Your task to perform on an android device: see creations saved in the google photos Image 0: 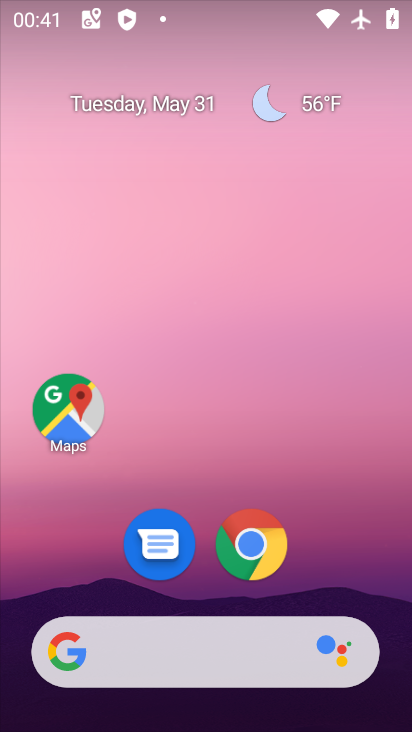
Step 0: drag from (280, 470) to (243, 187)
Your task to perform on an android device: see creations saved in the google photos Image 1: 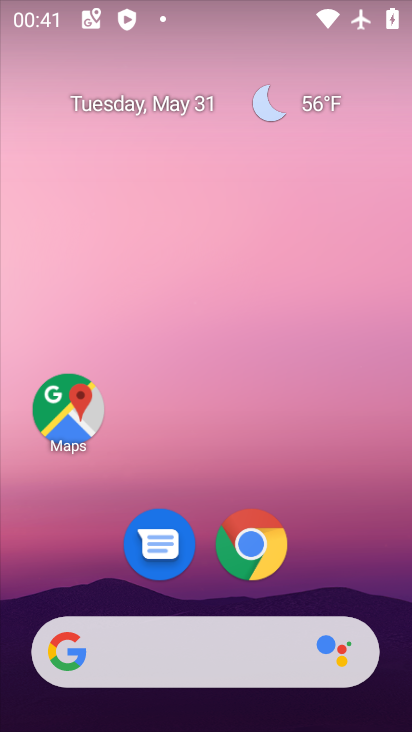
Step 1: drag from (205, 207) to (171, 10)
Your task to perform on an android device: see creations saved in the google photos Image 2: 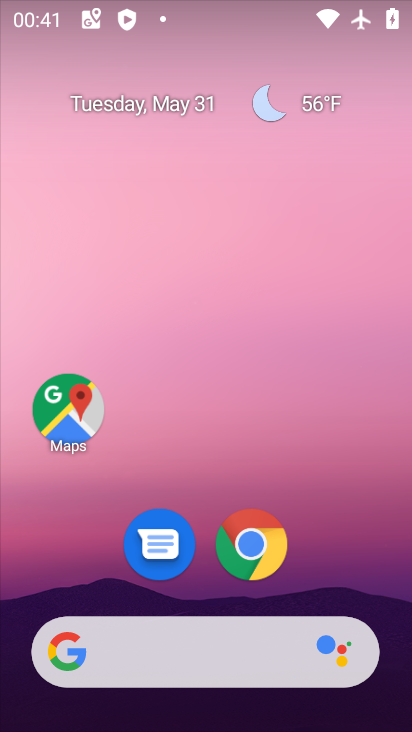
Step 2: drag from (323, 527) to (273, 82)
Your task to perform on an android device: see creations saved in the google photos Image 3: 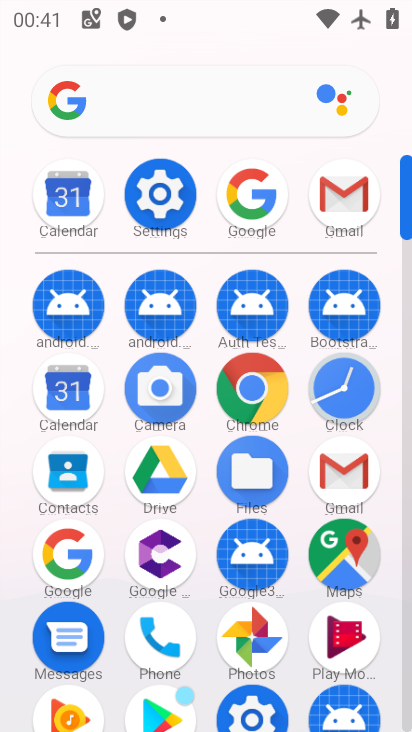
Step 3: click (249, 638)
Your task to perform on an android device: see creations saved in the google photos Image 4: 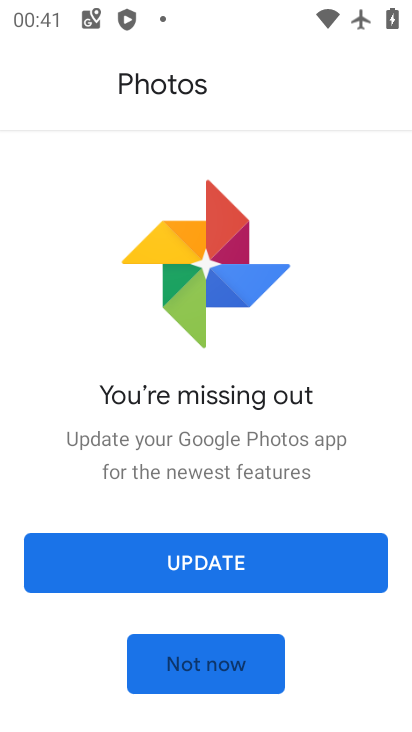
Step 4: click (188, 549)
Your task to perform on an android device: see creations saved in the google photos Image 5: 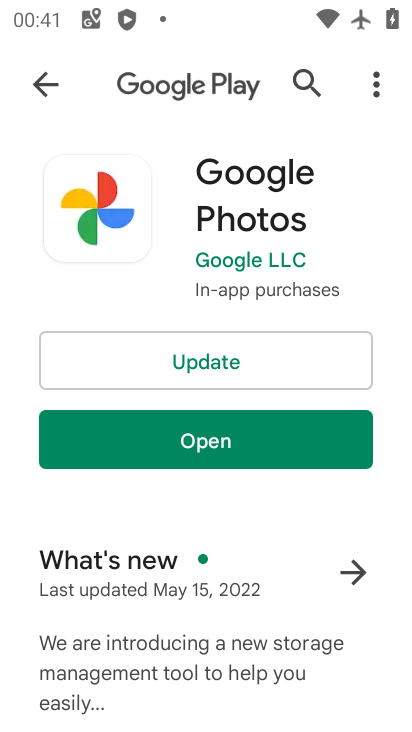
Step 5: click (209, 362)
Your task to perform on an android device: see creations saved in the google photos Image 6: 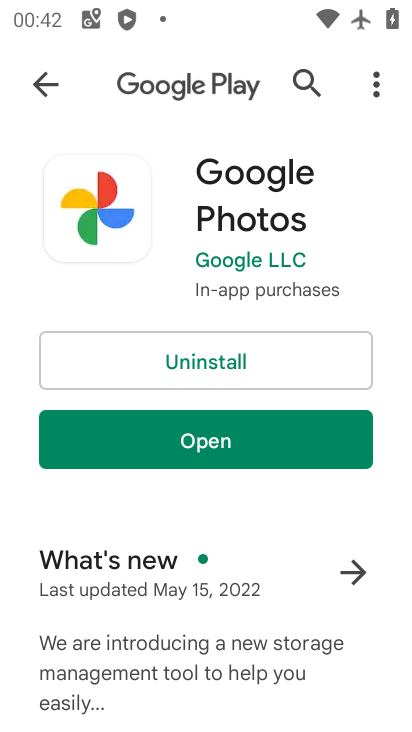
Step 6: click (209, 440)
Your task to perform on an android device: see creations saved in the google photos Image 7: 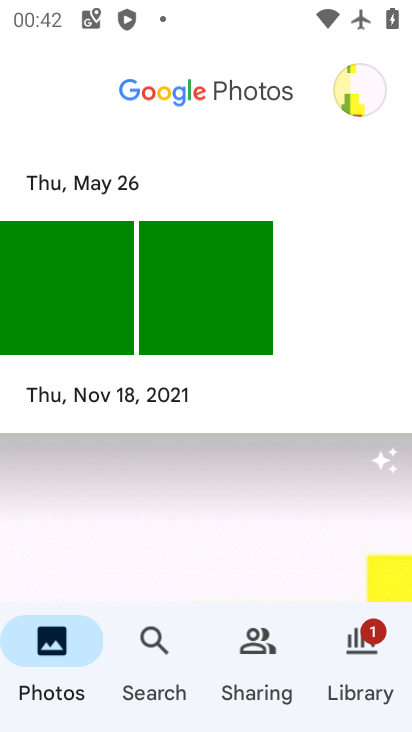
Step 7: click (153, 631)
Your task to perform on an android device: see creations saved in the google photos Image 8: 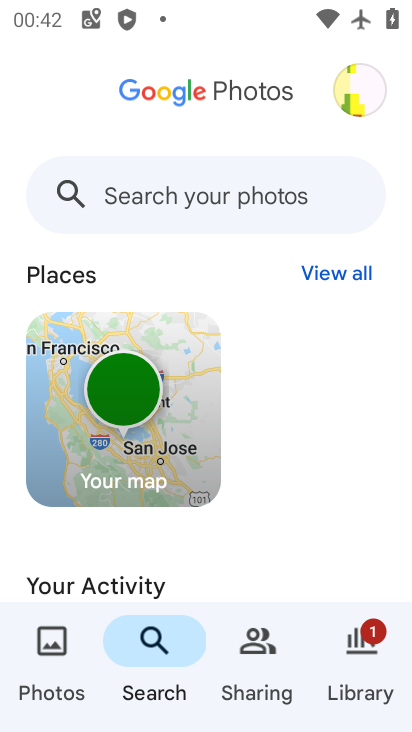
Step 8: click (177, 174)
Your task to perform on an android device: see creations saved in the google photos Image 9: 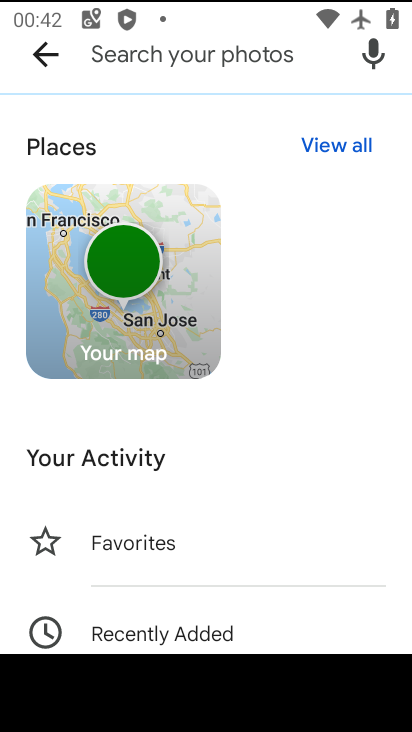
Step 9: type "creations"
Your task to perform on an android device: see creations saved in the google photos Image 10: 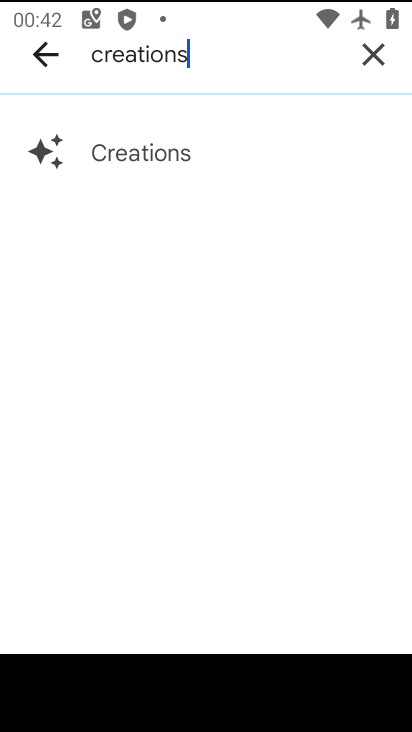
Step 10: click (161, 155)
Your task to perform on an android device: see creations saved in the google photos Image 11: 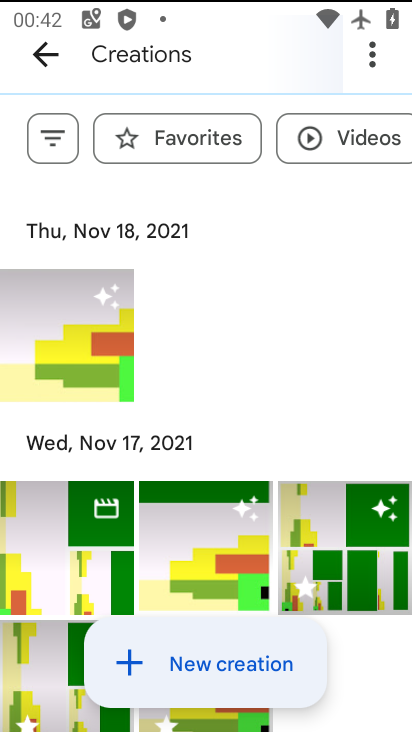
Step 11: task complete